Your task to perform on an android device: Show the shopping cart on target. Add "macbook pro 13 inch" to the cart on target, then select checkout. Image 0: 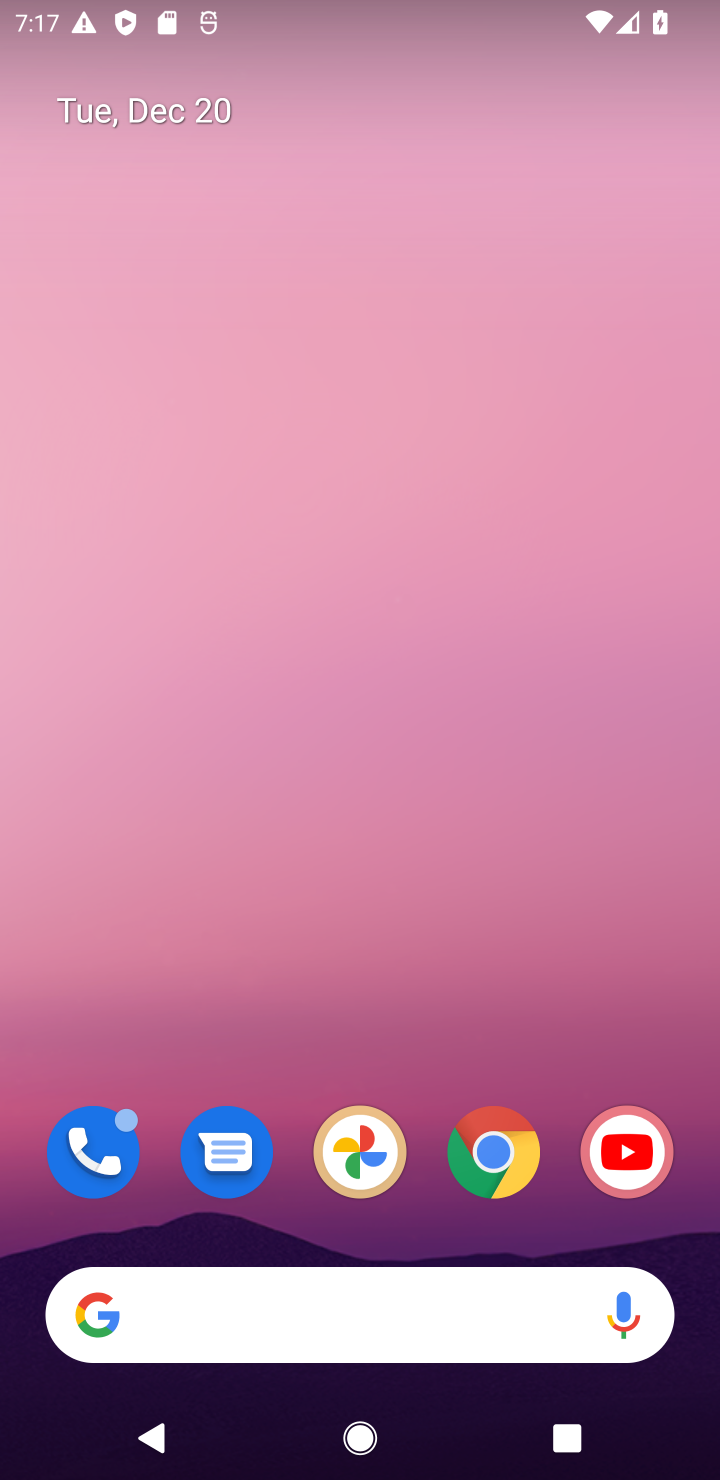
Step 0: click (466, 1148)
Your task to perform on an android device: Show the shopping cart on target. Add "macbook pro 13 inch" to the cart on target, then select checkout. Image 1: 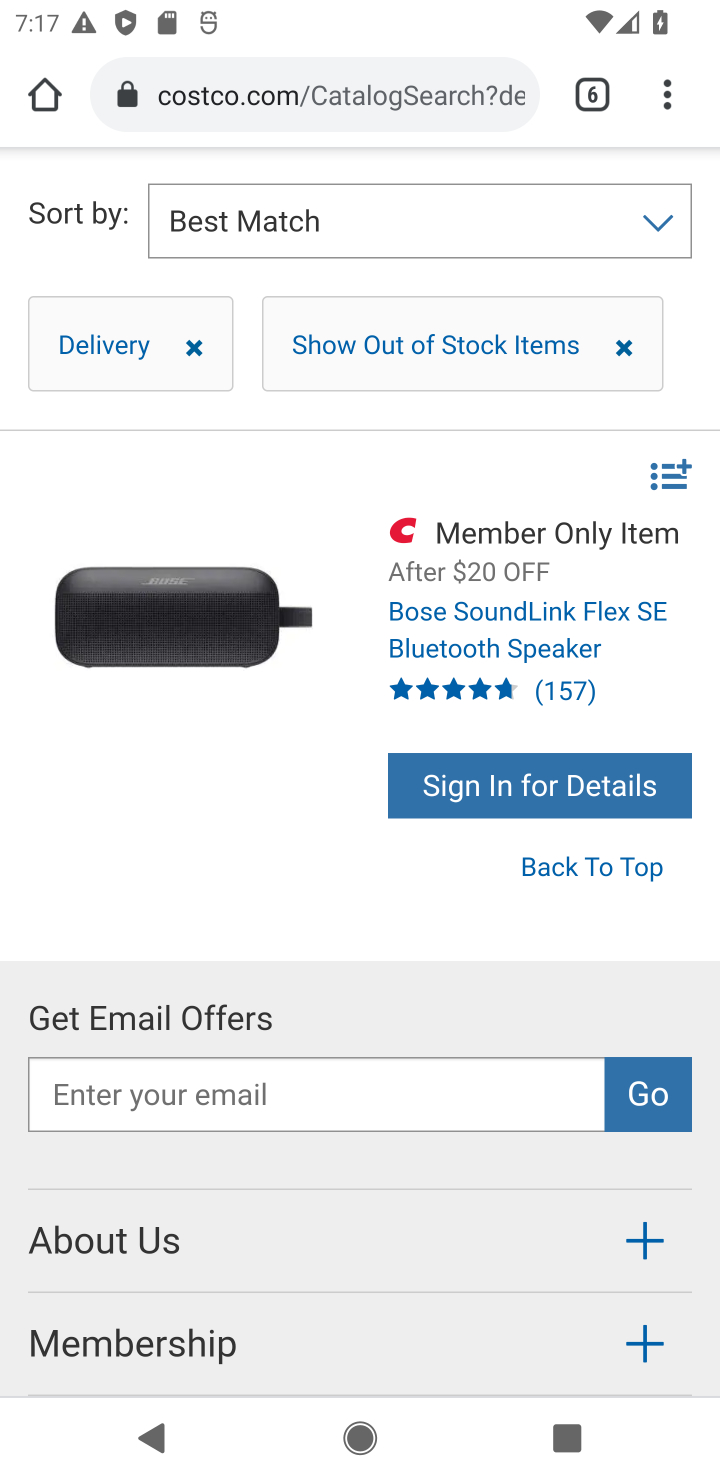
Step 1: click (587, 96)
Your task to perform on an android device: Show the shopping cart on target. Add "macbook pro 13 inch" to the cart on target, then select checkout. Image 2: 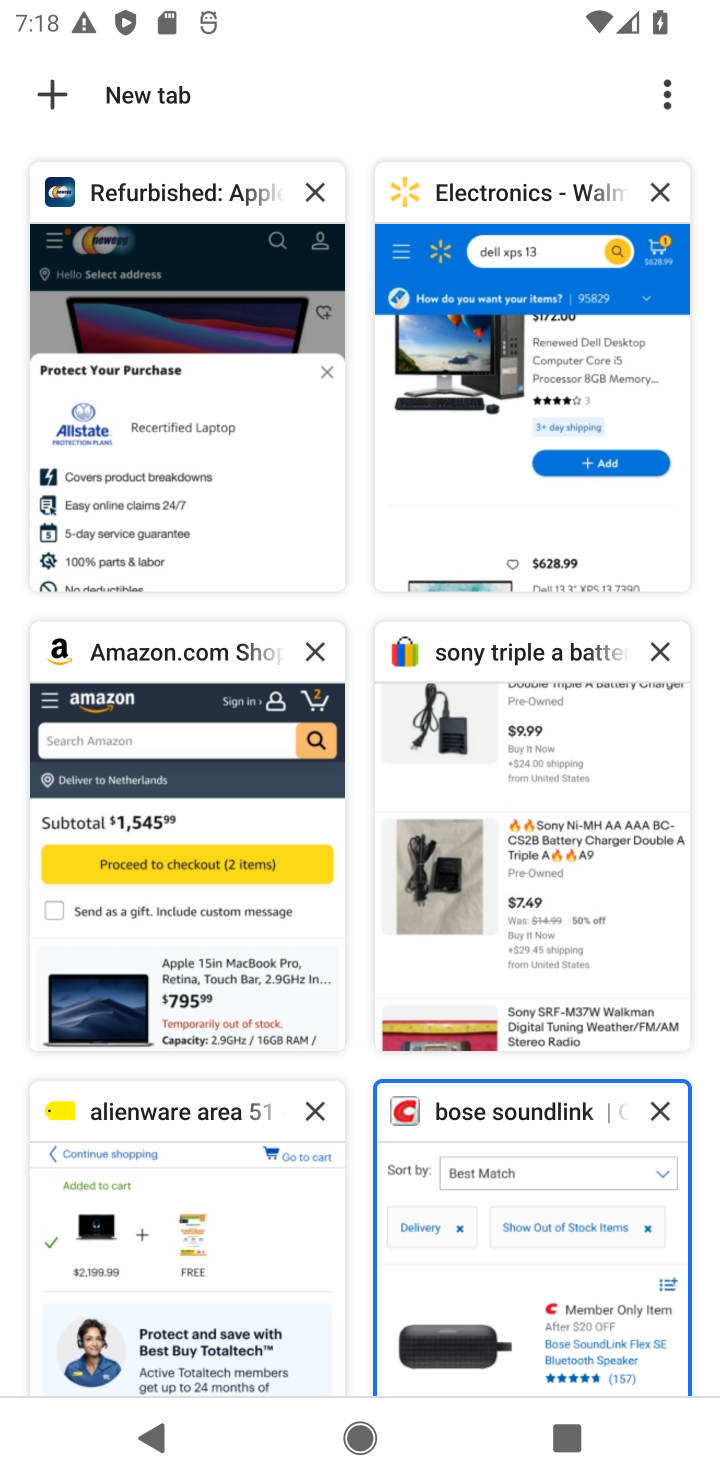
Step 2: click (40, 79)
Your task to perform on an android device: Show the shopping cart on target. Add "macbook pro 13 inch" to the cart on target, then select checkout. Image 3: 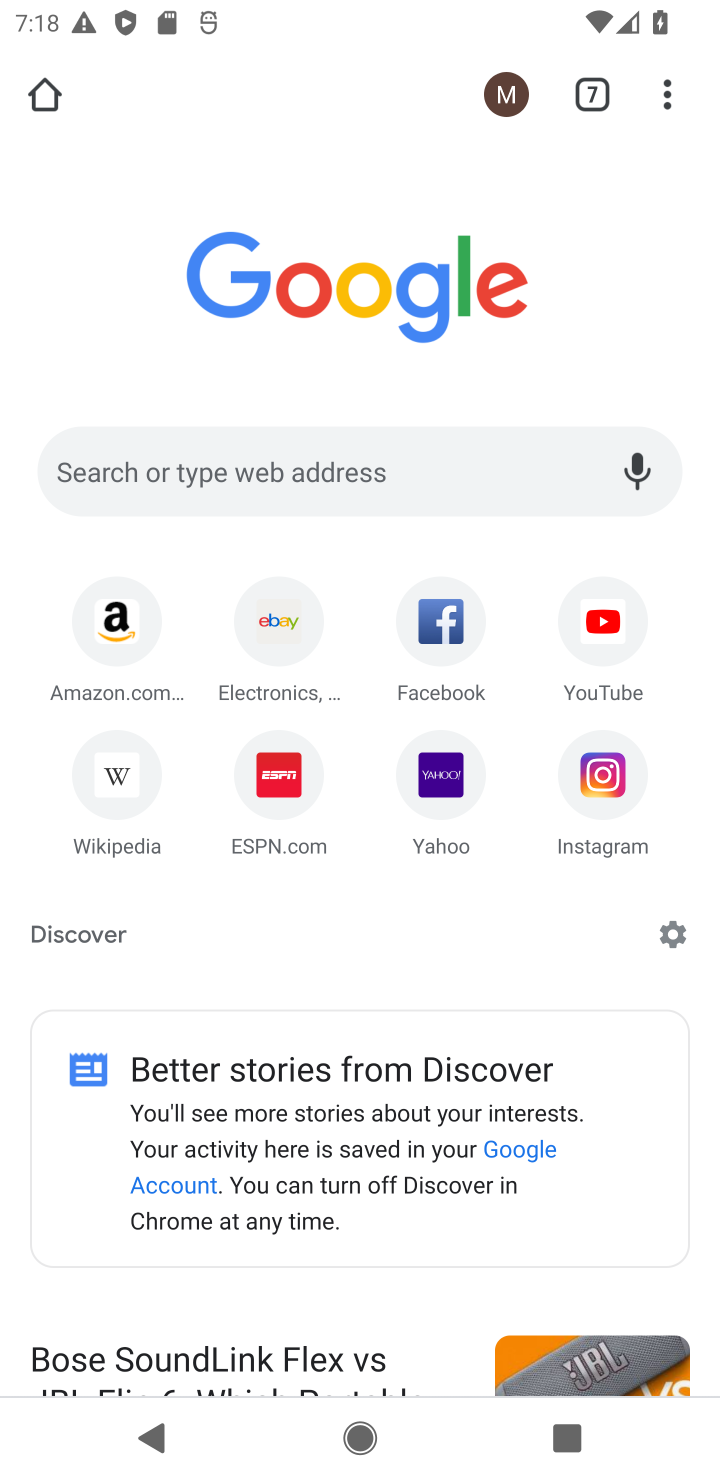
Step 3: click (229, 450)
Your task to perform on an android device: Show the shopping cart on target. Add "macbook pro 13 inch" to the cart on target, then select checkout. Image 4: 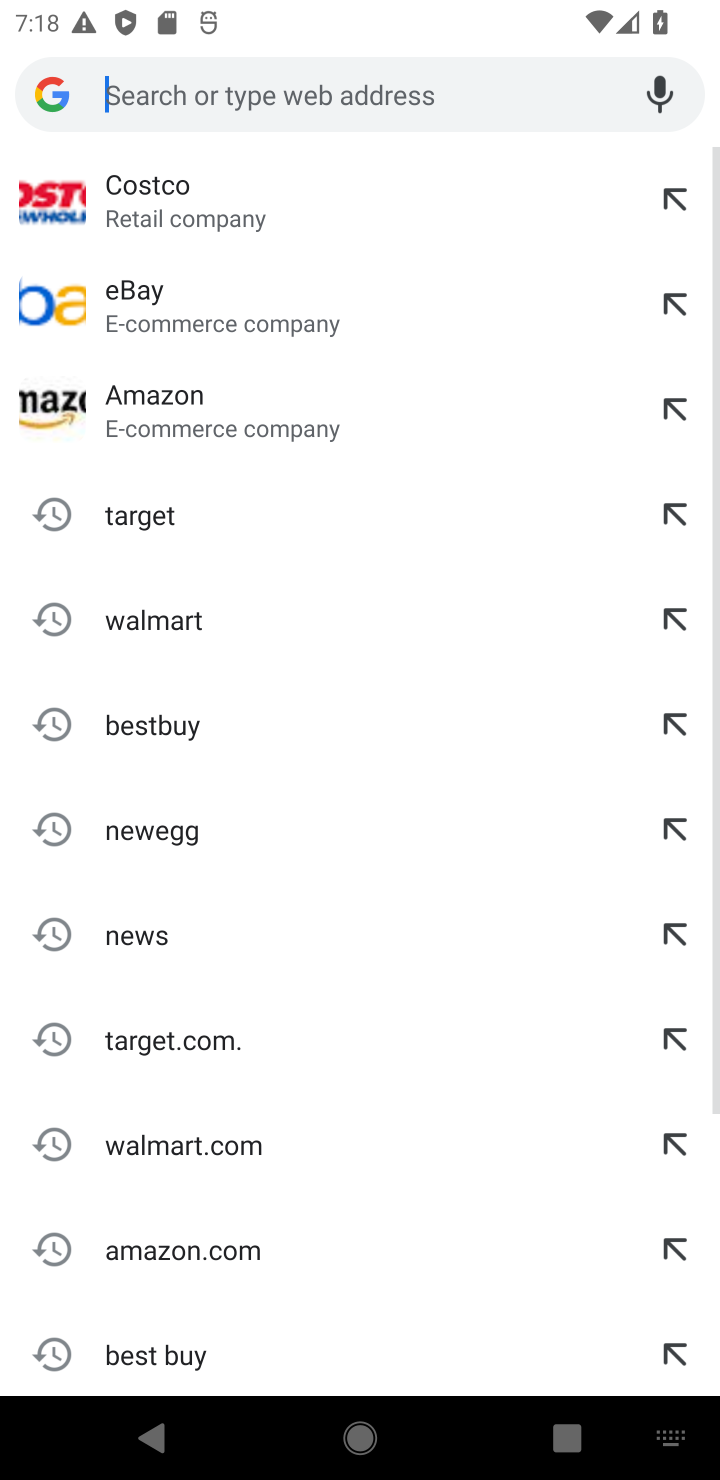
Step 4: click (125, 518)
Your task to perform on an android device: Show the shopping cart on target. Add "macbook pro 13 inch" to the cart on target, then select checkout. Image 5: 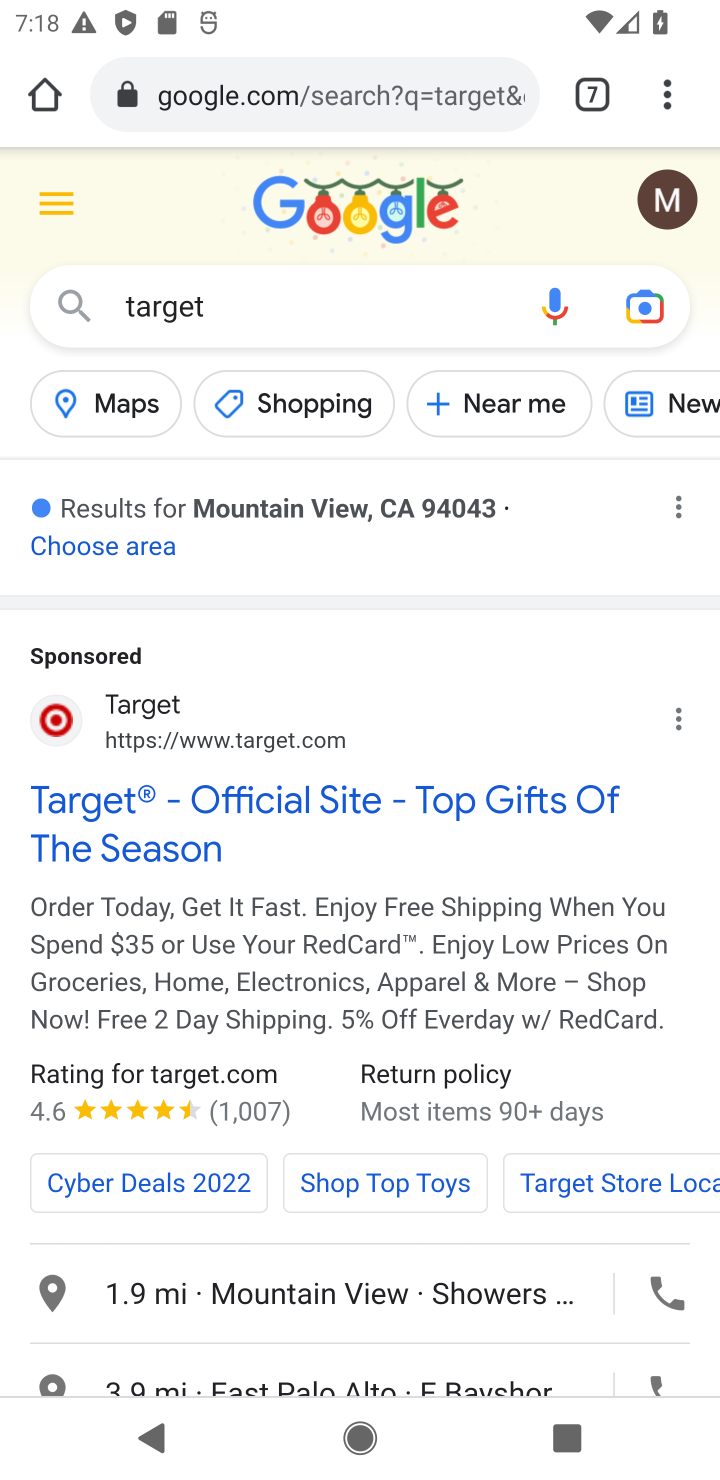
Step 5: drag from (437, 1088) to (458, 811)
Your task to perform on an android device: Show the shopping cart on target. Add "macbook pro 13 inch" to the cart on target, then select checkout. Image 6: 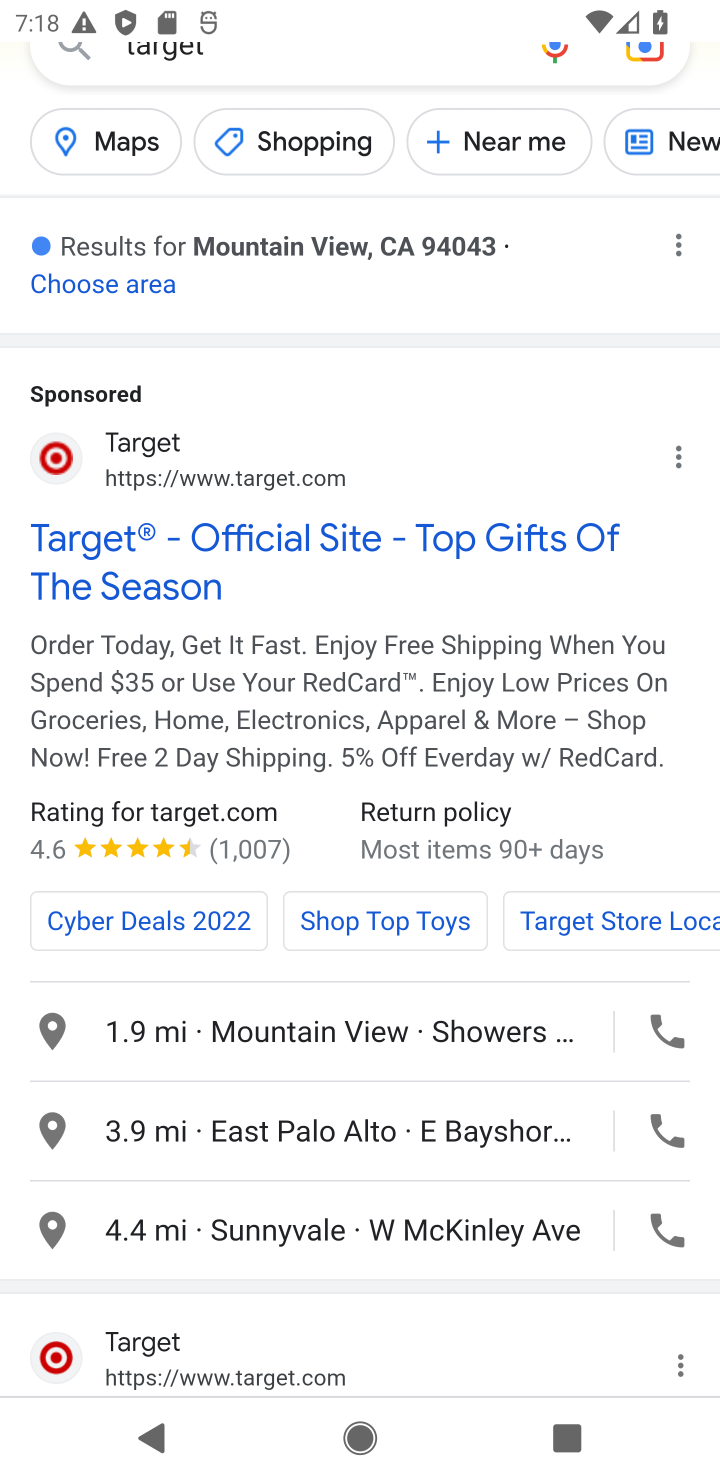
Step 6: drag from (307, 1015) to (361, 504)
Your task to perform on an android device: Show the shopping cart on target. Add "macbook pro 13 inch" to the cart on target, then select checkout. Image 7: 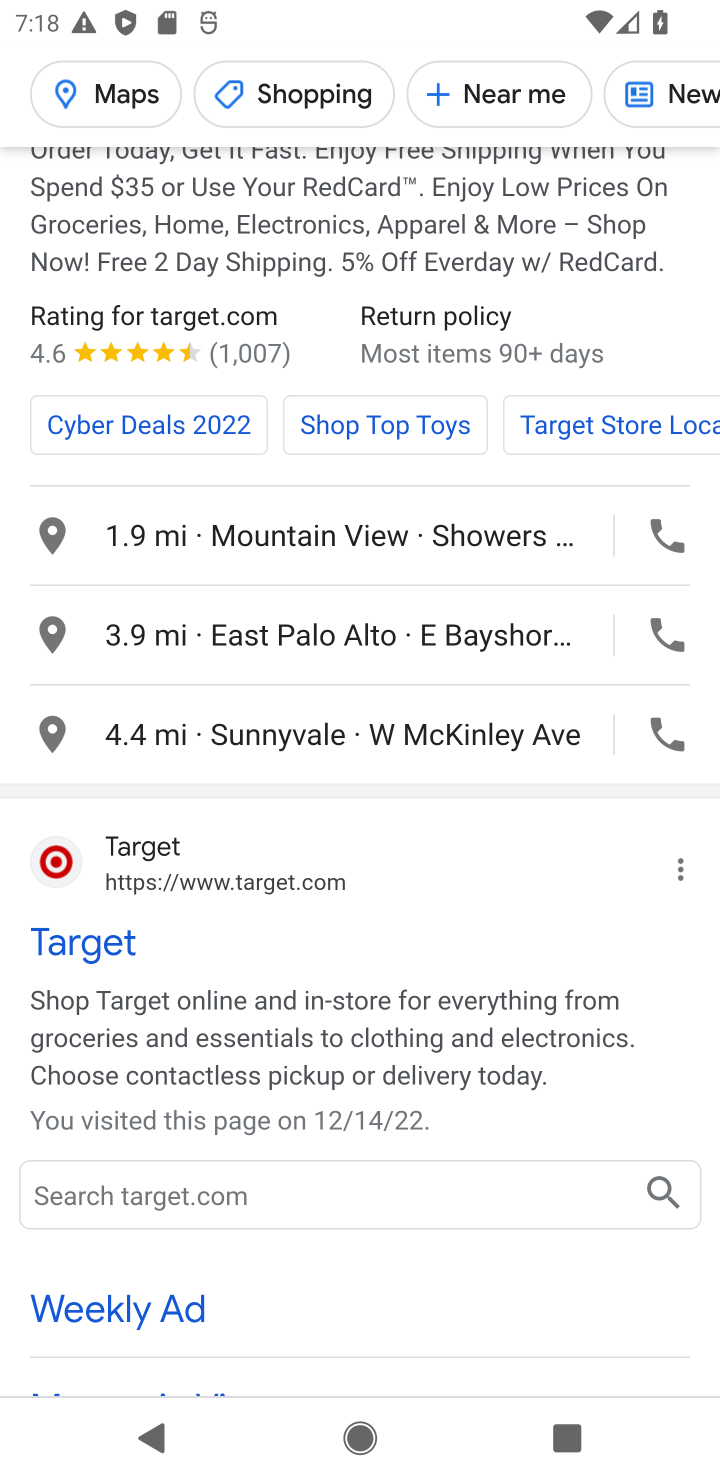
Step 7: click (181, 1191)
Your task to perform on an android device: Show the shopping cart on target. Add "macbook pro 13 inch" to the cart on target, then select checkout. Image 8: 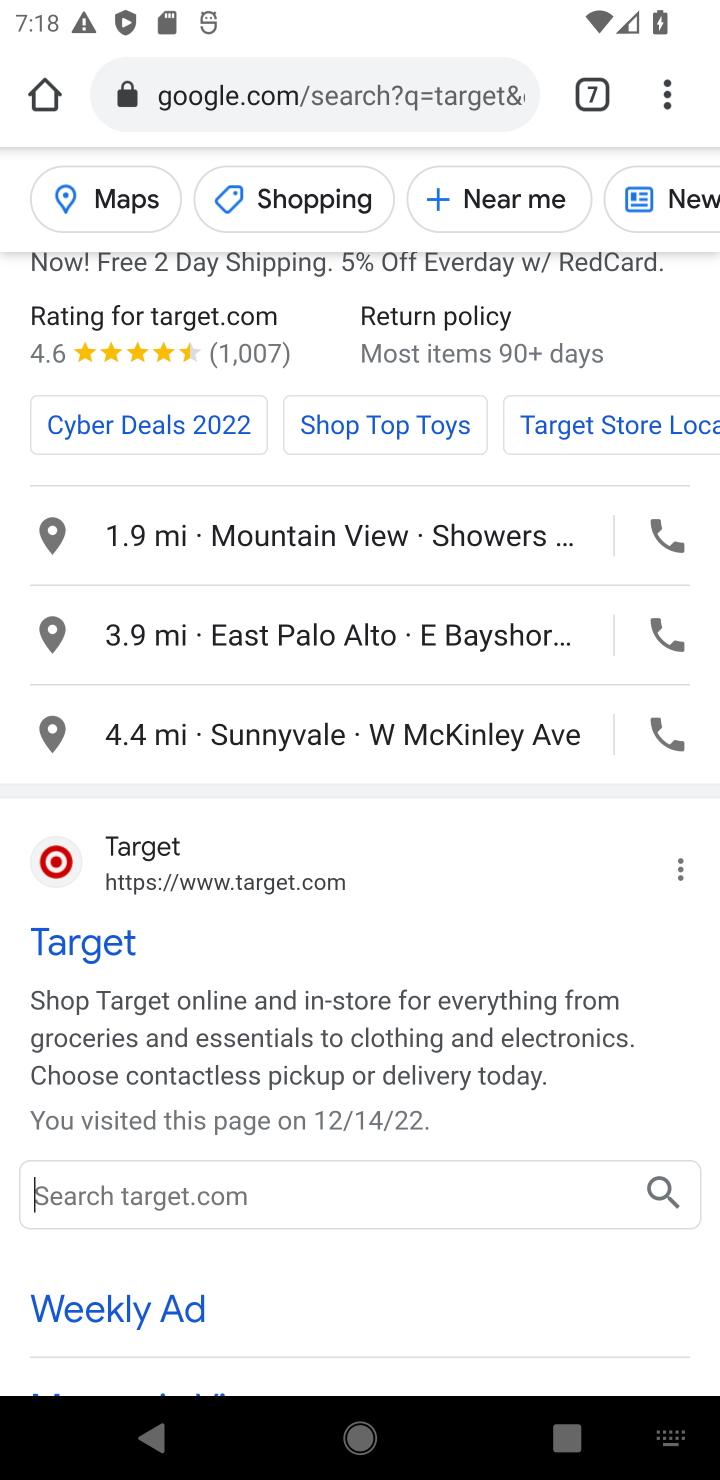
Step 8: type "macbook pro 13"
Your task to perform on an android device: Show the shopping cart on target. Add "macbook pro 13 inch" to the cart on target, then select checkout. Image 9: 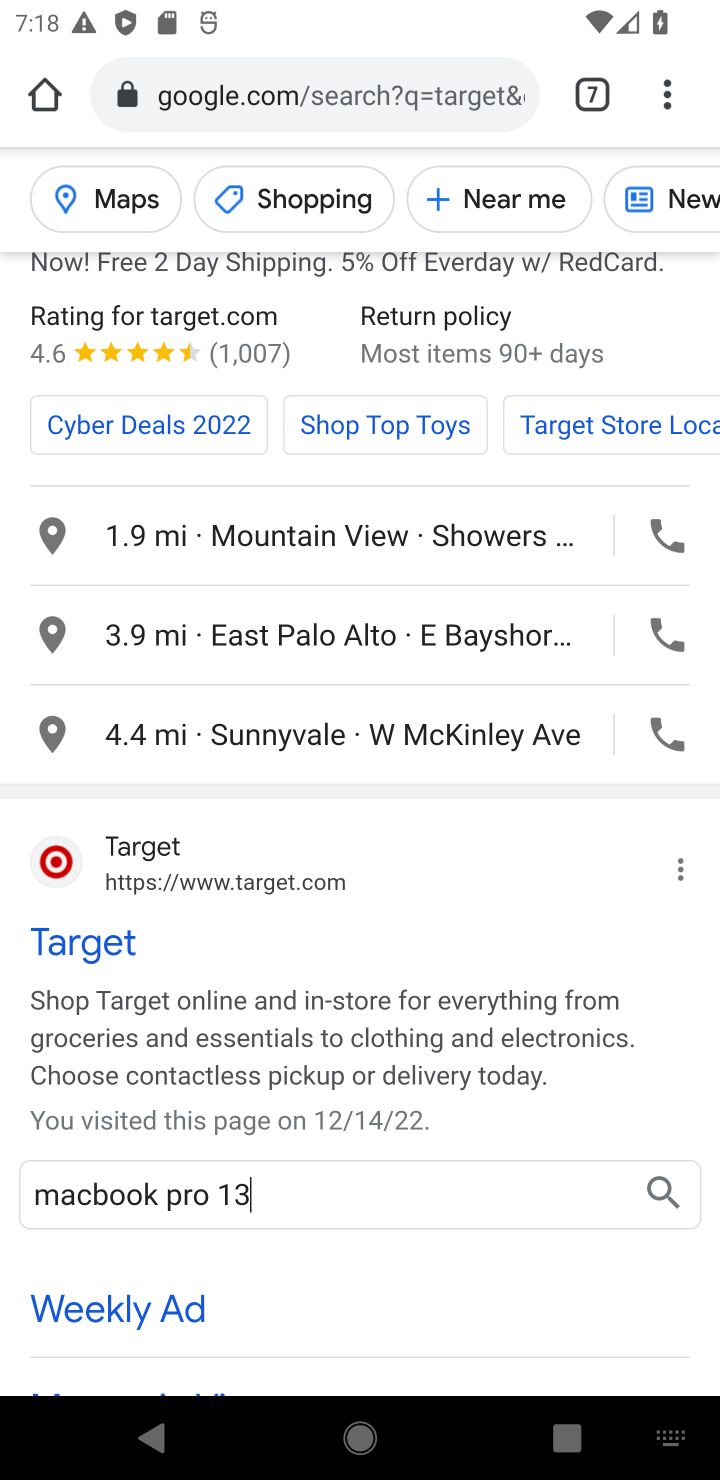
Step 9: click (656, 1191)
Your task to perform on an android device: Show the shopping cart on target. Add "macbook pro 13 inch" to the cart on target, then select checkout. Image 10: 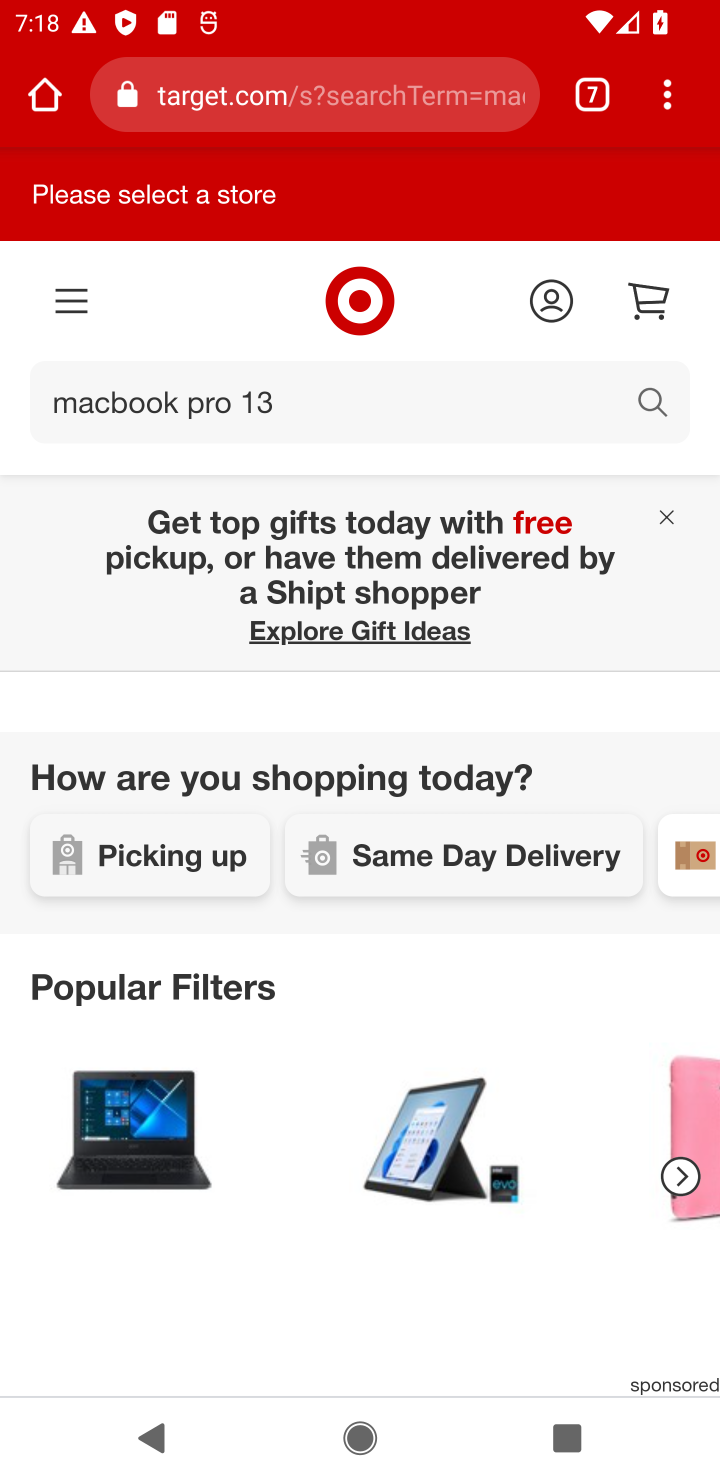
Step 10: task complete